Your task to perform on an android device: Empty the shopping cart on walmart. Search for amazon basics triple a on walmart, select the first entry, and add it to the cart. Image 0: 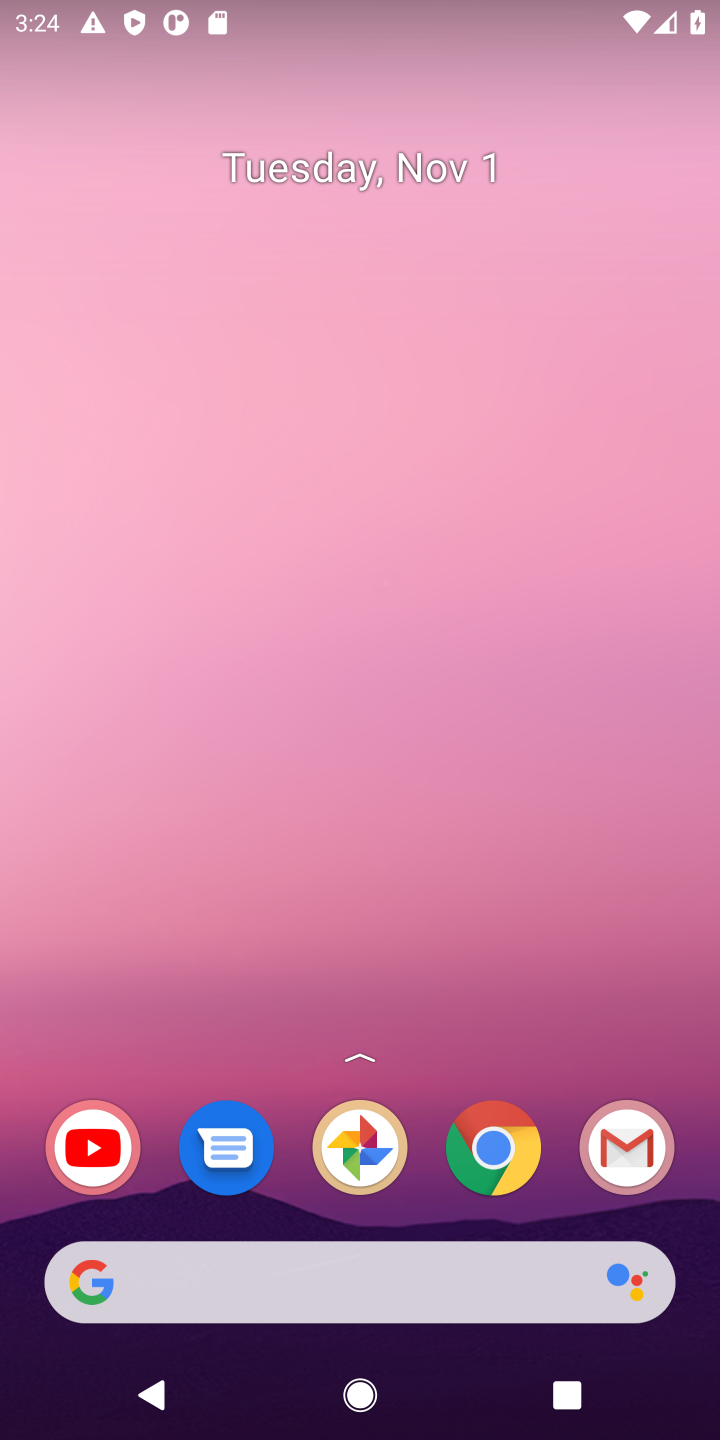
Step 0: click (543, 298)
Your task to perform on an android device: Empty the shopping cart on walmart. Search for amazon basics triple a on walmart, select the first entry, and add it to the cart. Image 1: 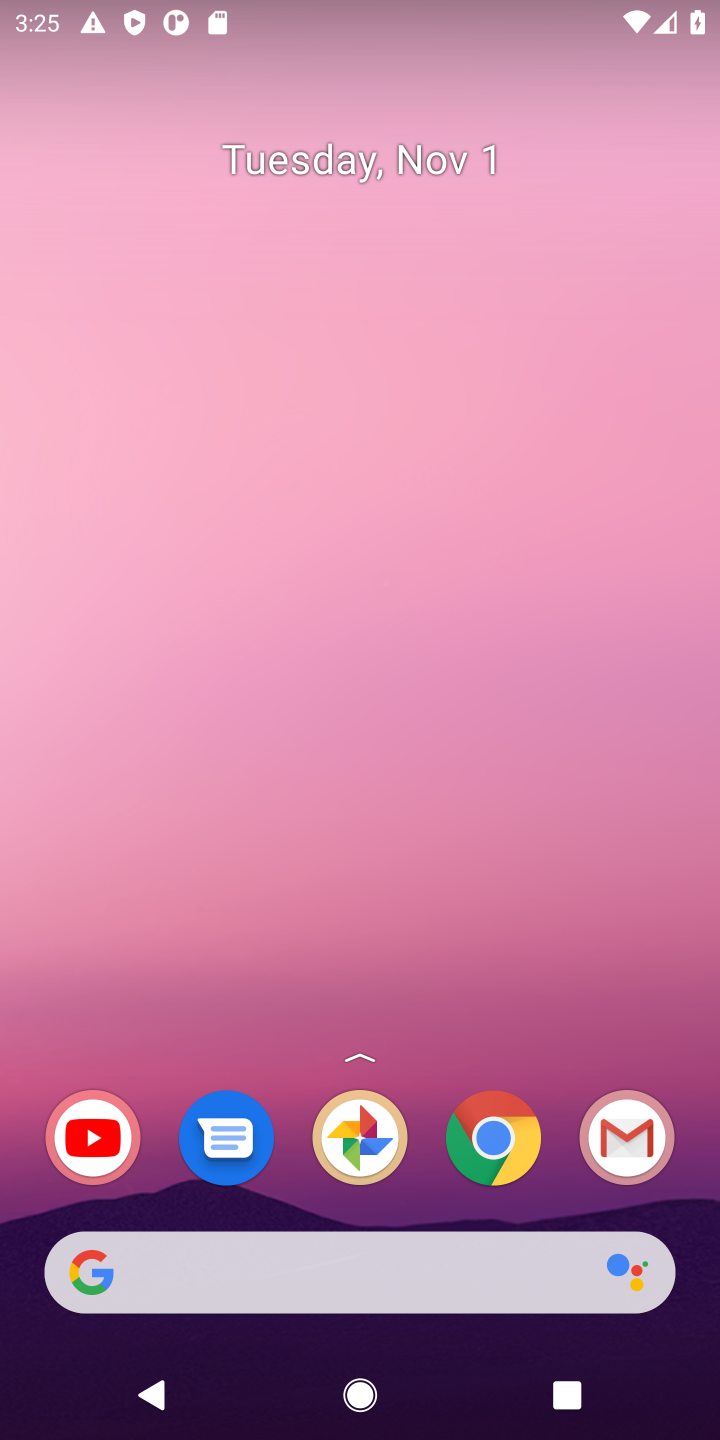
Step 1: click (511, 1129)
Your task to perform on an android device: Empty the shopping cart on walmart. Search for amazon basics triple a on walmart, select the first entry, and add it to the cart. Image 2: 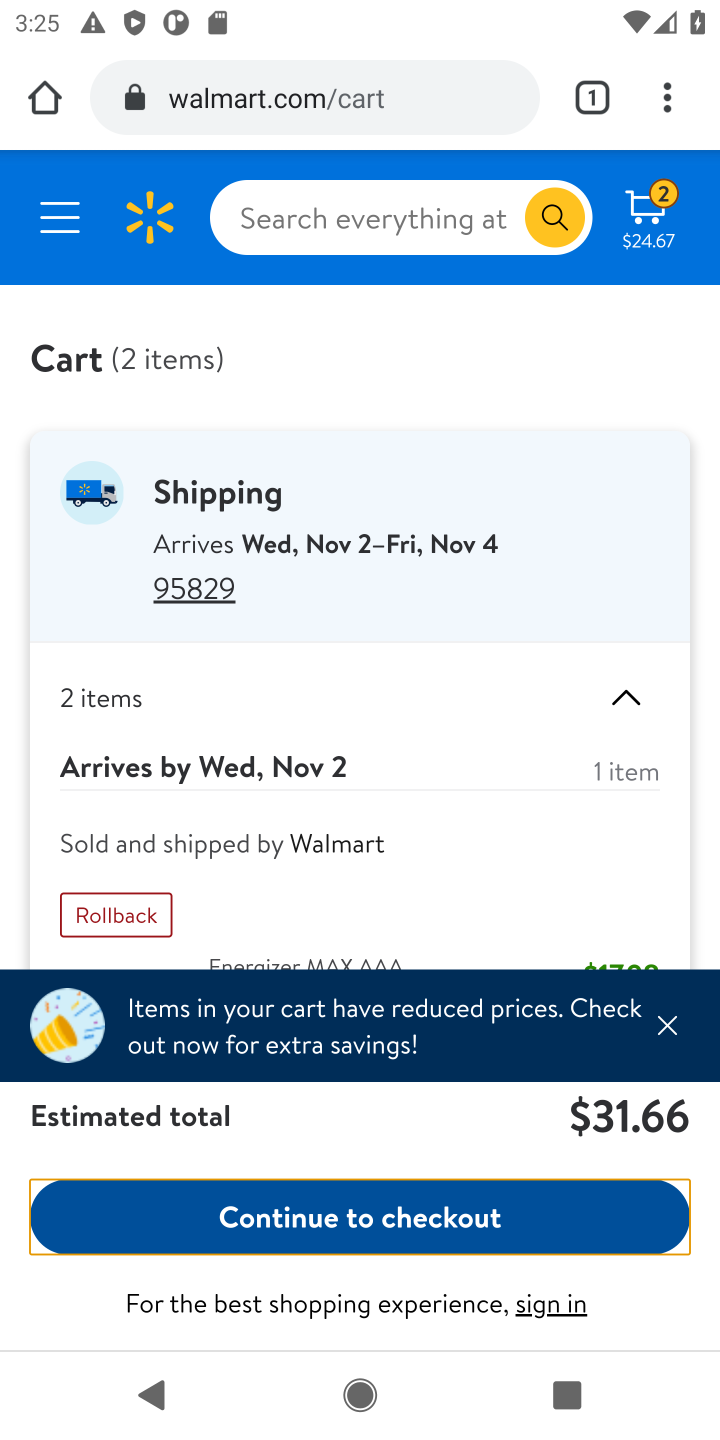
Step 2: click (651, 212)
Your task to perform on an android device: Empty the shopping cart on walmart. Search for amazon basics triple a on walmart, select the first entry, and add it to the cart. Image 3: 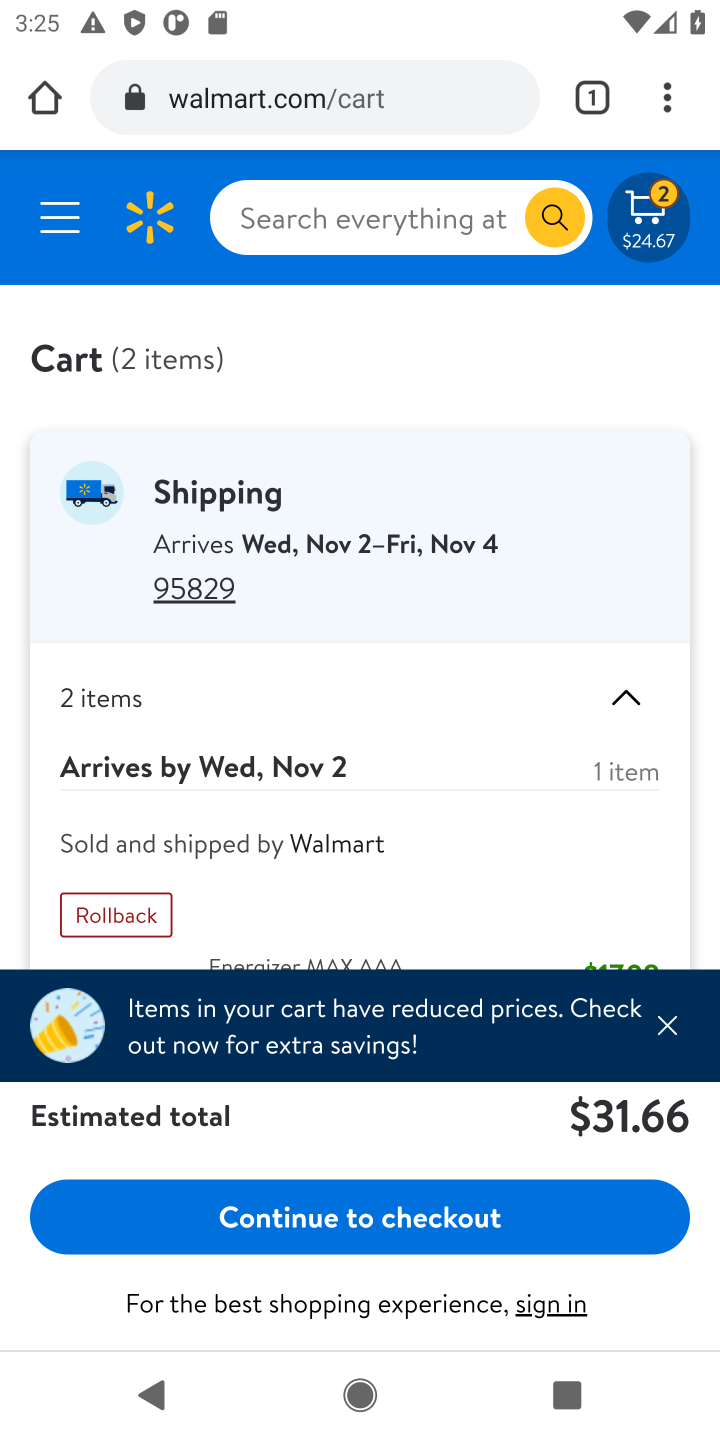
Step 3: click (666, 213)
Your task to perform on an android device: Empty the shopping cart on walmart. Search for amazon basics triple a on walmart, select the first entry, and add it to the cart. Image 4: 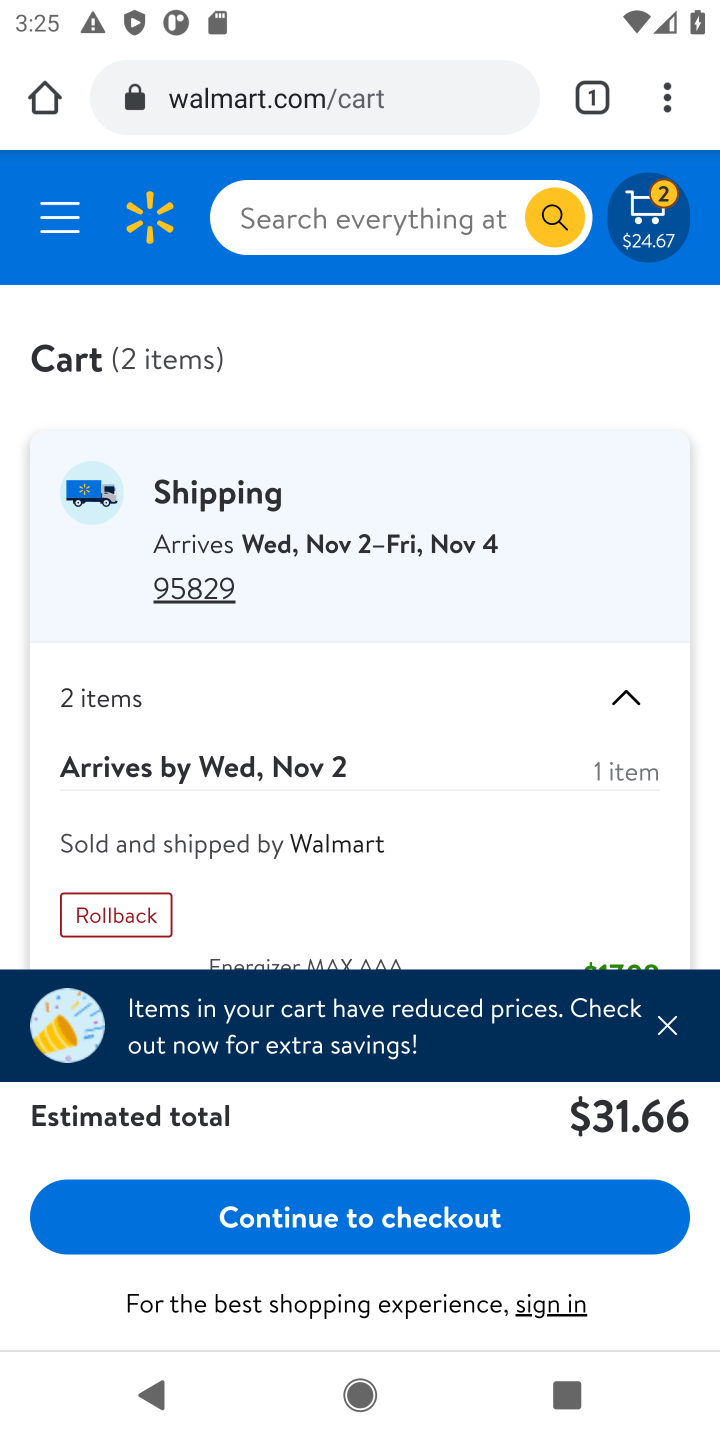
Step 4: click (668, 1023)
Your task to perform on an android device: Empty the shopping cart on walmart. Search for amazon basics triple a on walmart, select the first entry, and add it to the cart. Image 5: 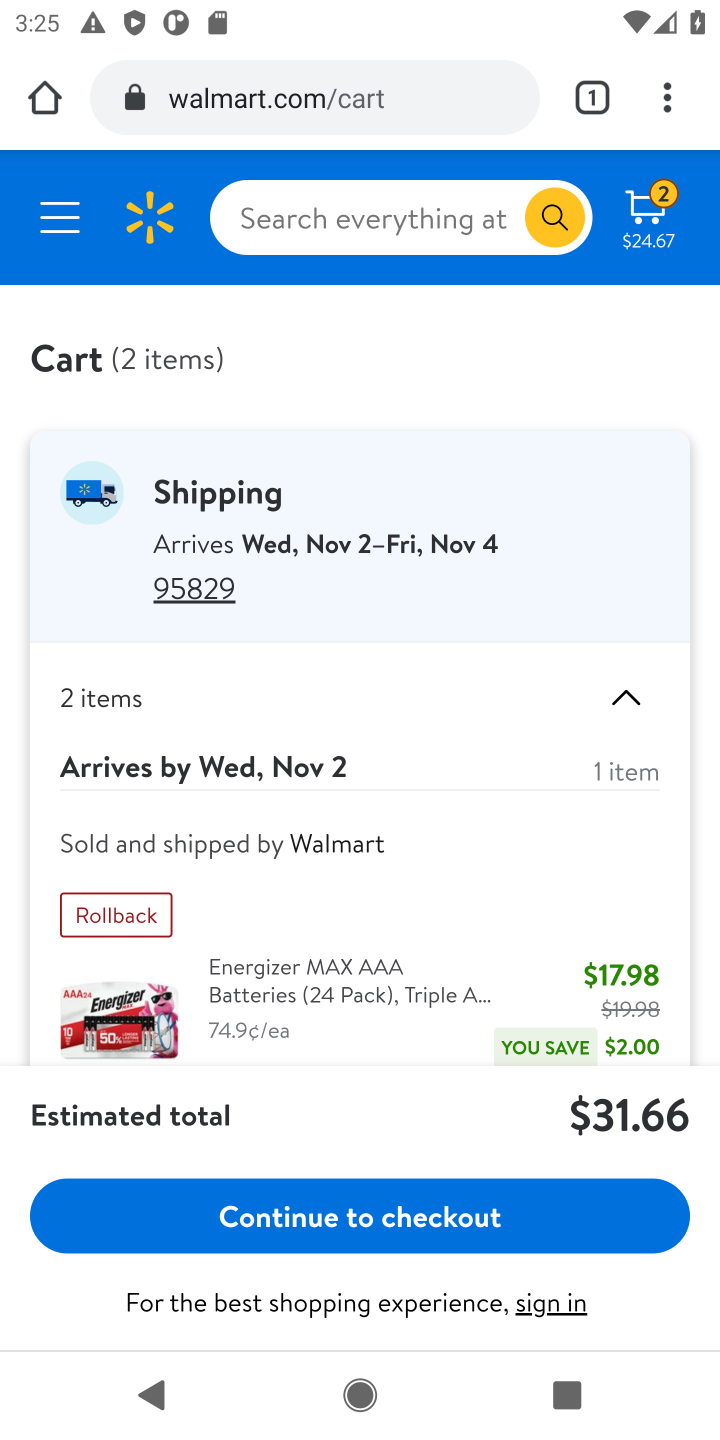
Step 5: drag from (433, 804) to (460, 358)
Your task to perform on an android device: Empty the shopping cart on walmart. Search for amazon basics triple a on walmart, select the first entry, and add it to the cart. Image 6: 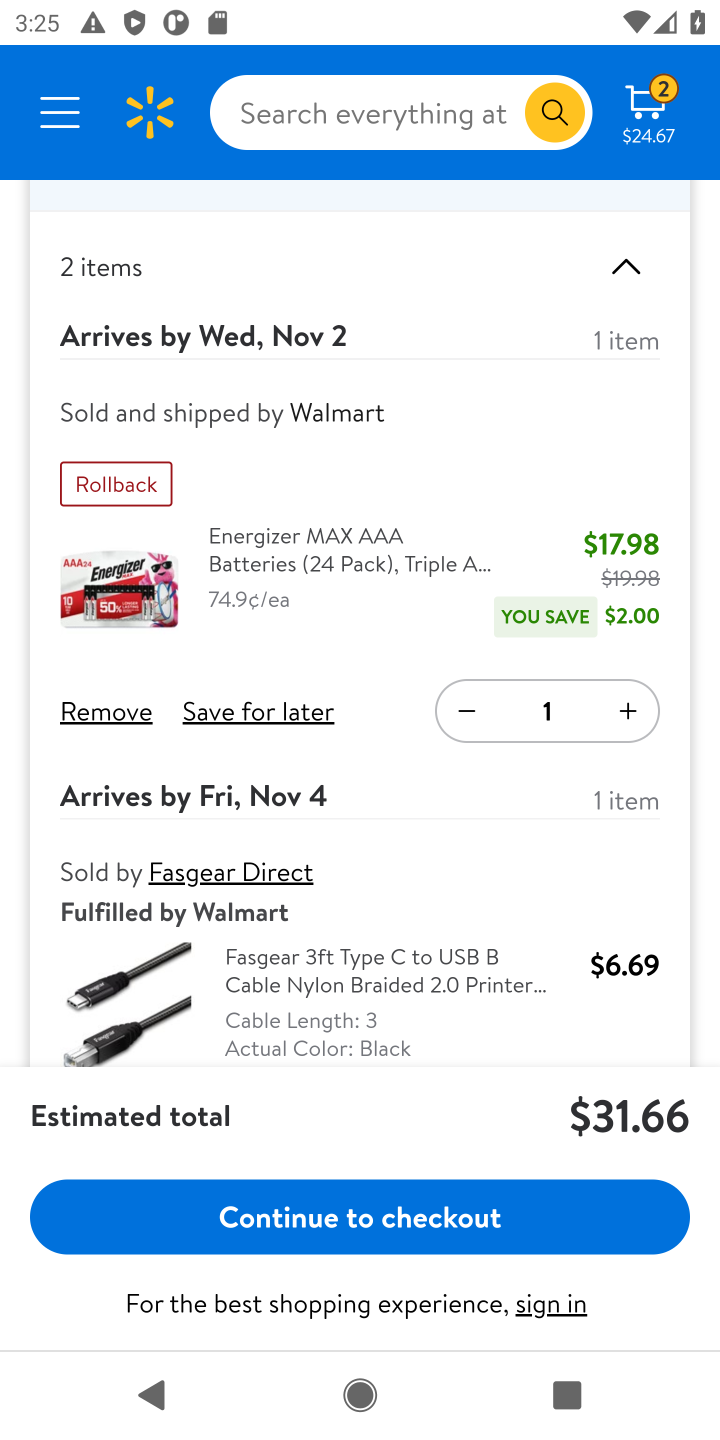
Step 6: click (121, 707)
Your task to perform on an android device: Empty the shopping cart on walmart. Search for amazon basics triple a on walmart, select the first entry, and add it to the cart. Image 7: 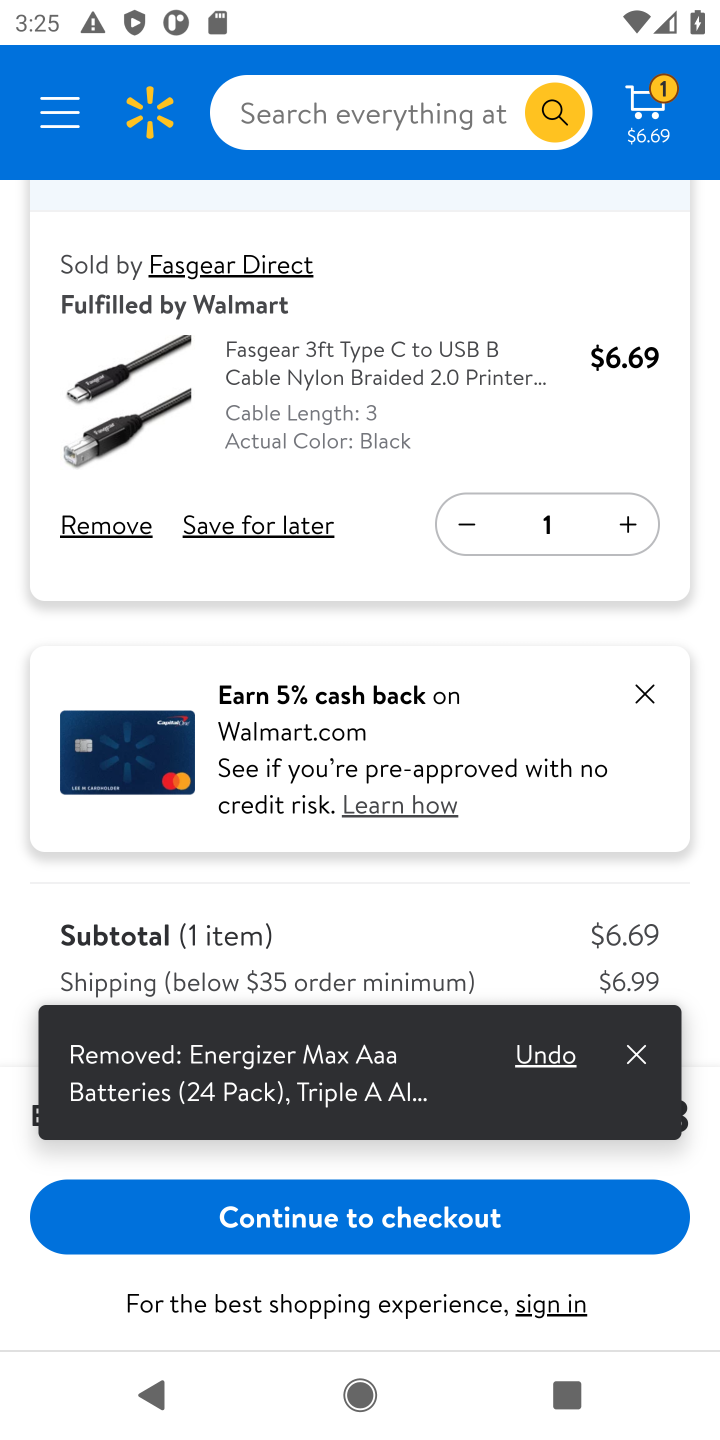
Step 7: click (96, 519)
Your task to perform on an android device: Empty the shopping cart on walmart. Search for amazon basics triple a on walmart, select the first entry, and add it to the cart. Image 8: 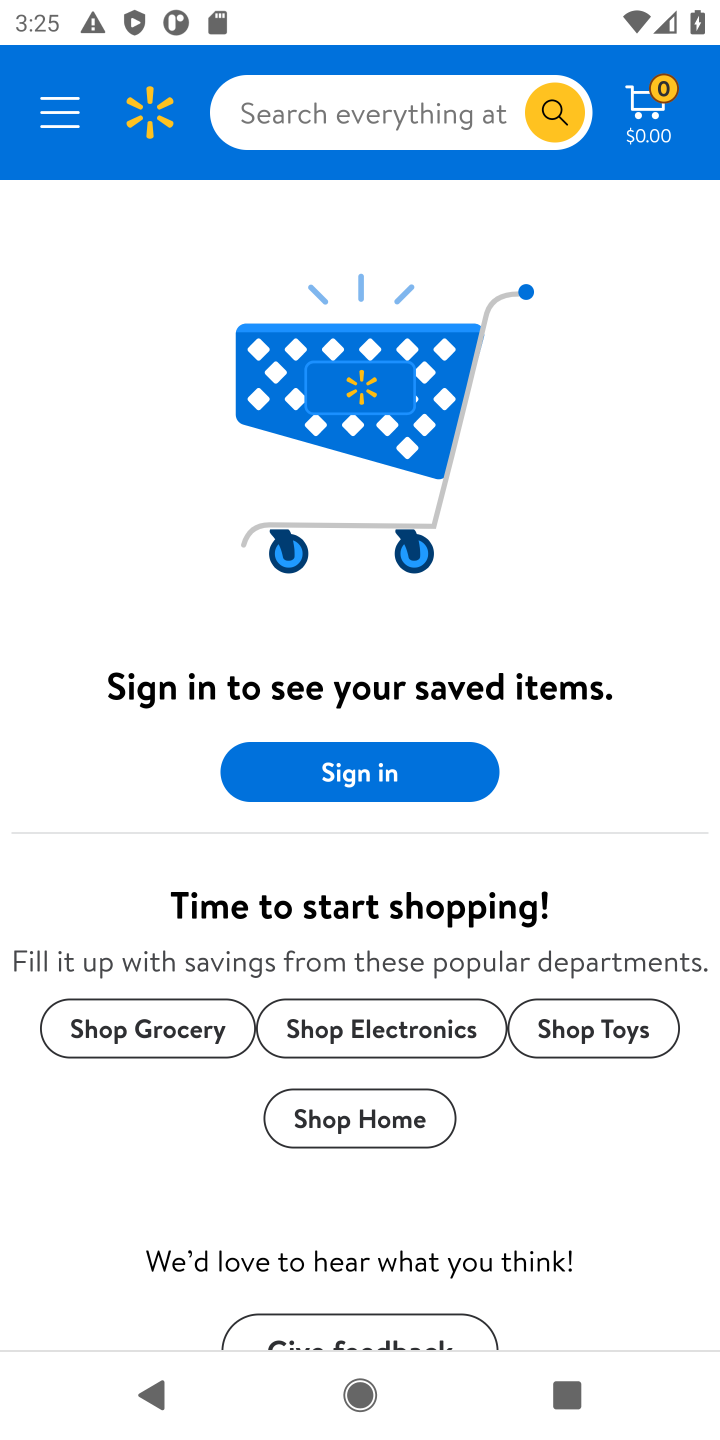
Step 8: click (382, 100)
Your task to perform on an android device: Empty the shopping cart on walmart. Search for amazon basics triple a on walmart, select the first entry, and add it to the cart. Image 9: 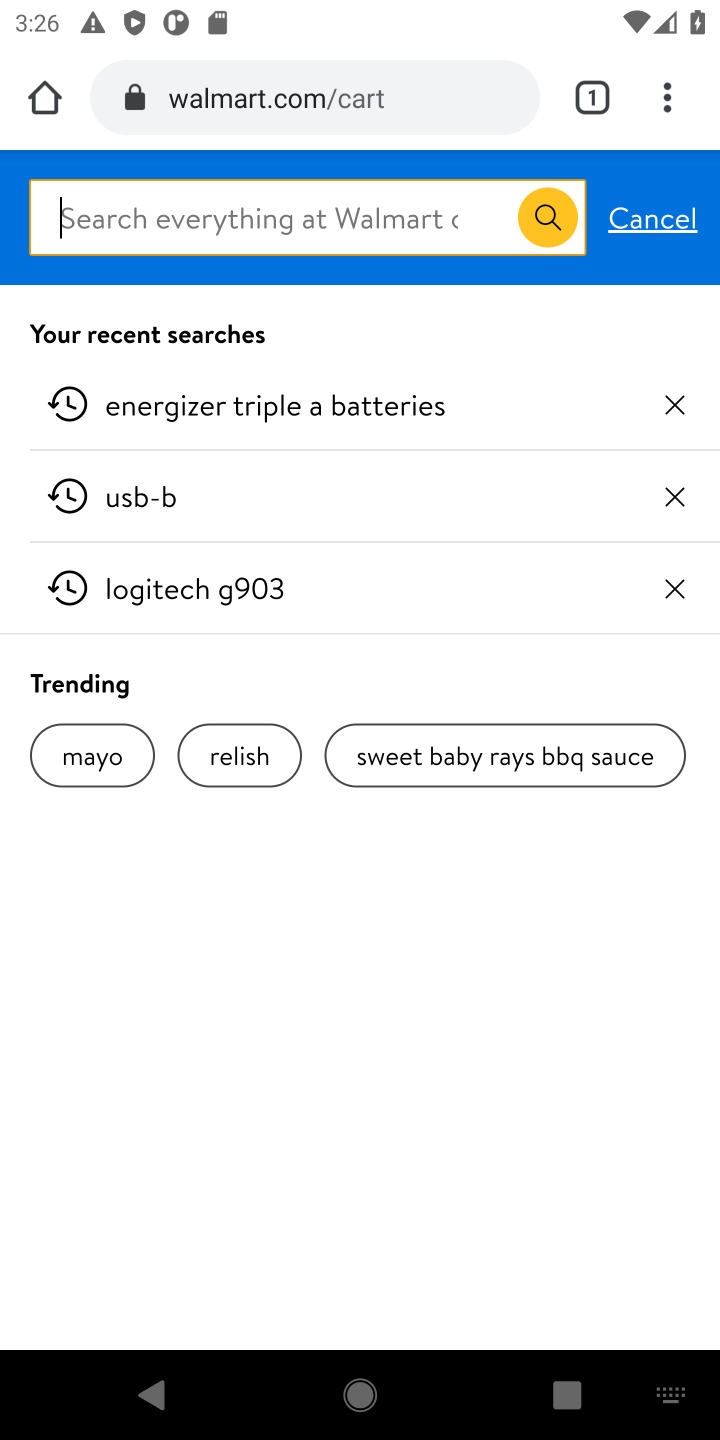
Step 9: type "amazon basics triple a"
Your task to perform on an android device: Empty the shopping cart on walmart. Search for amazon basics triple a on walmart, select the first entry, and add it to the cart. Image 10: 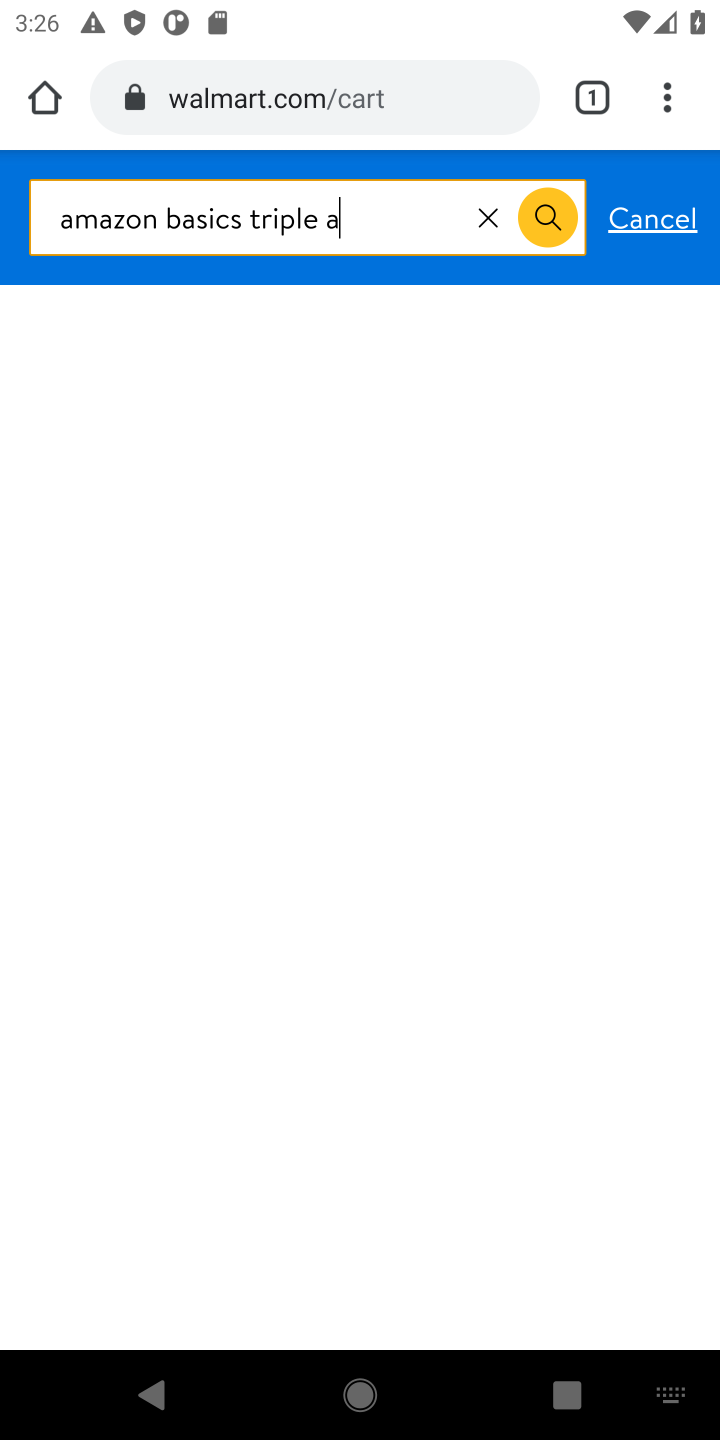
Step 10: click (530, 204)
Your task to perform on an android device: Empty the shopping cart on walmart. Search for amazon basics triple a on walmart, select the first entry, and add it to the cart. Image 11: 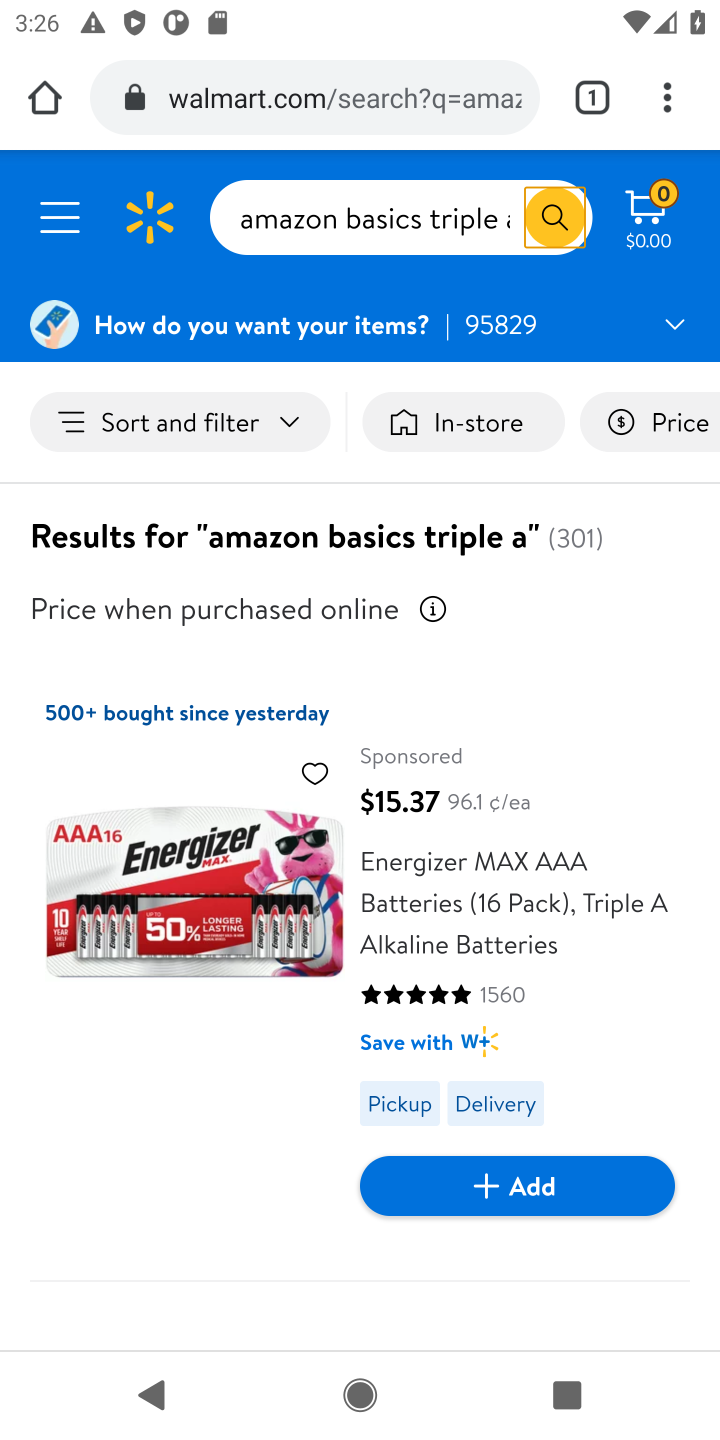
Step 11: click (473, 1190)
Your task to perform on an android device: Empty the shopping cart on walmart. Search for amazon basics triple a on walmart, select the first entry, and add it to the cart. Image 12: 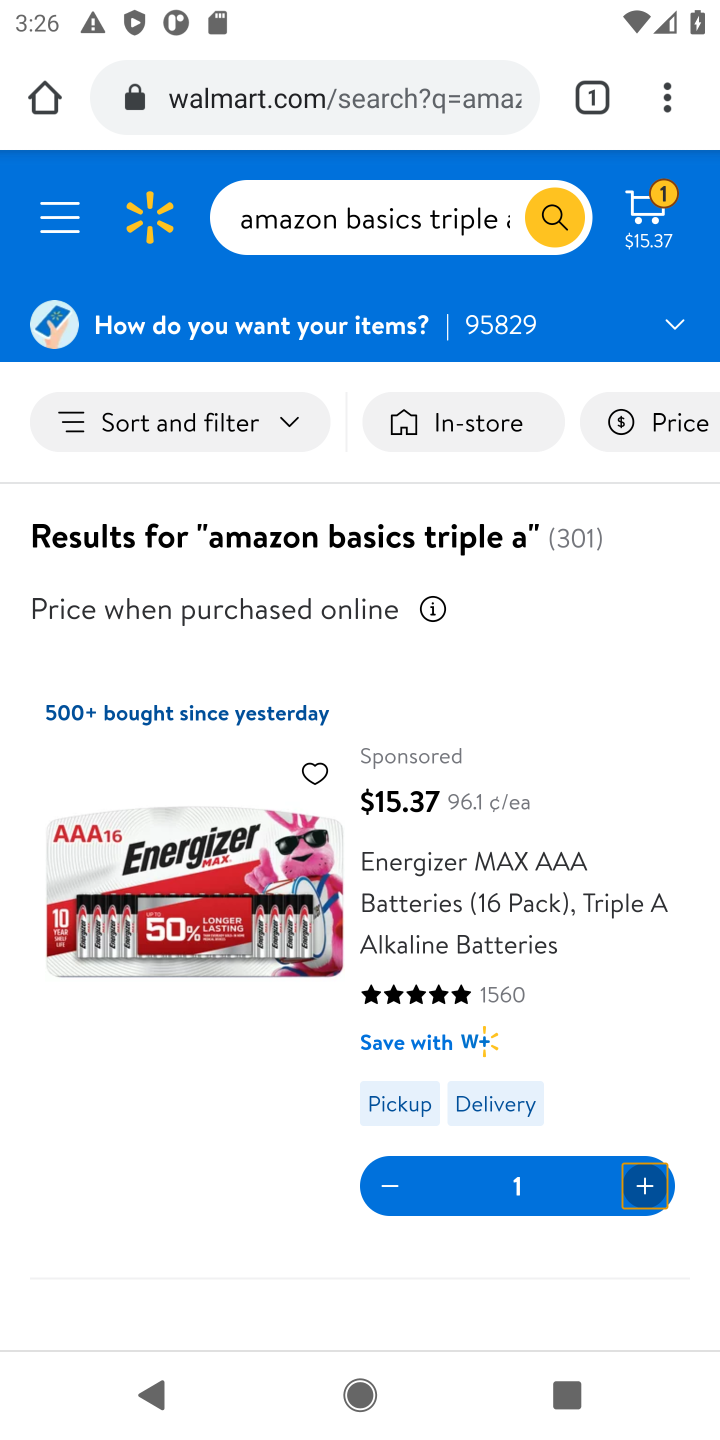
Step 12: task complete